Your task to perform on an android device: Open the Play Movies app and select the watchlist tab. Image 0: 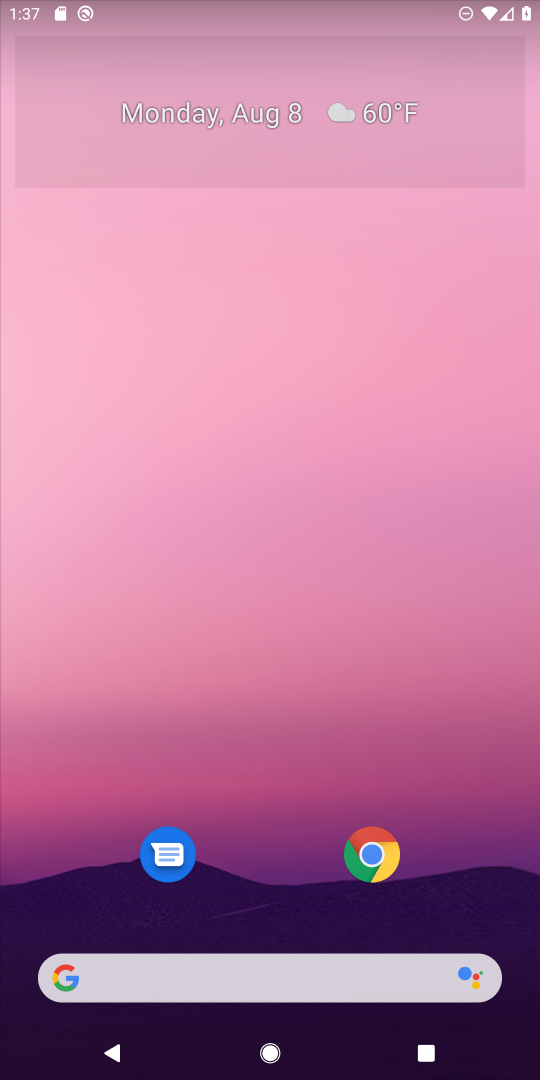
Step 0: press home button
Your task to perform on an android device: Open the Play Movies app and select the watchlist tab. Image 1: 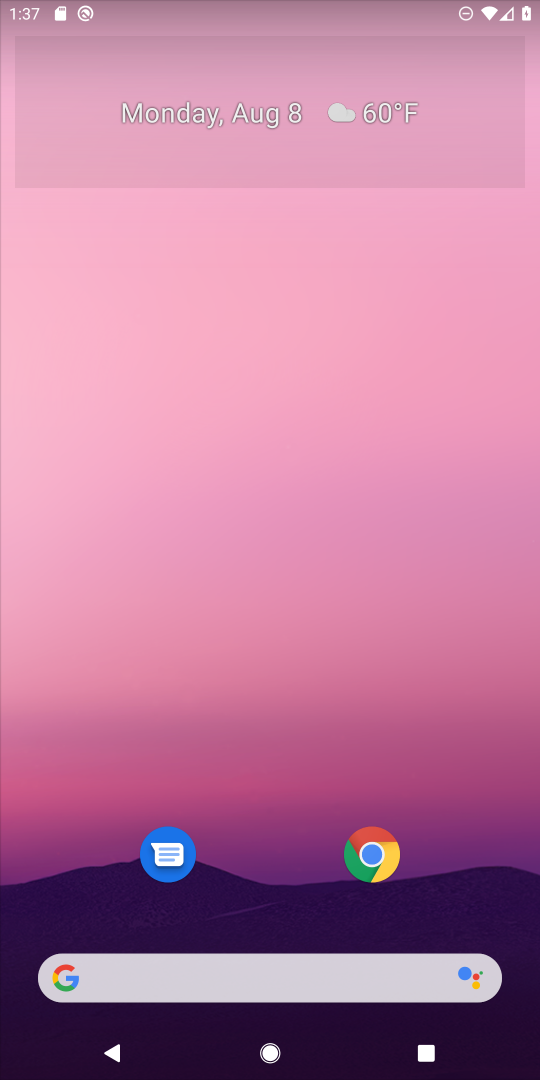
Step 1: drag from (283, 847) to (261, 124)
Your task to perform on an android device: Open the Play Movies app and select the watchlist tab. Image 2: 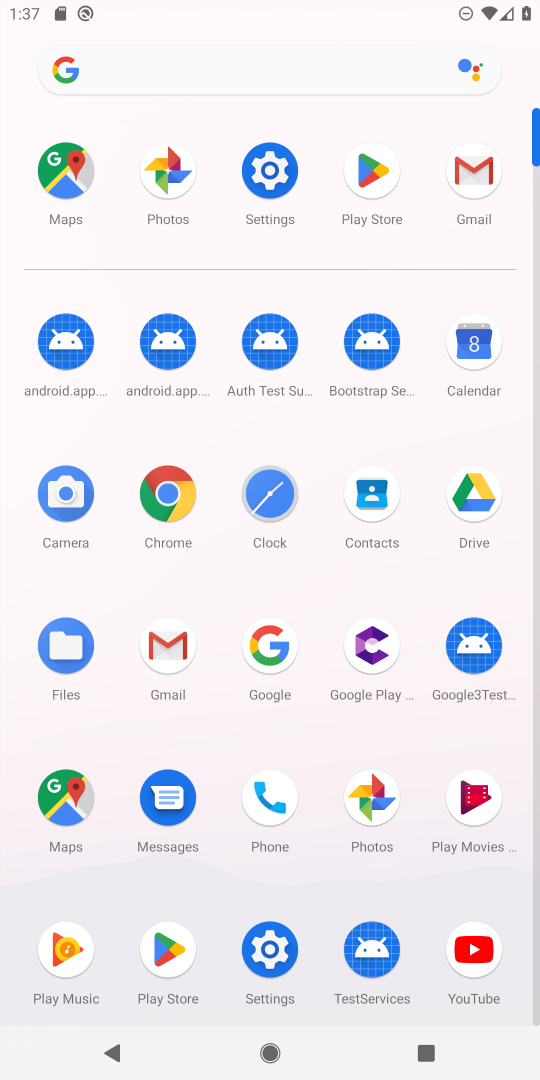
Step 2: click (472, 796)
Your task to perform on an android device: Open the Play Movies app and select the watchlist tab. Image 3: 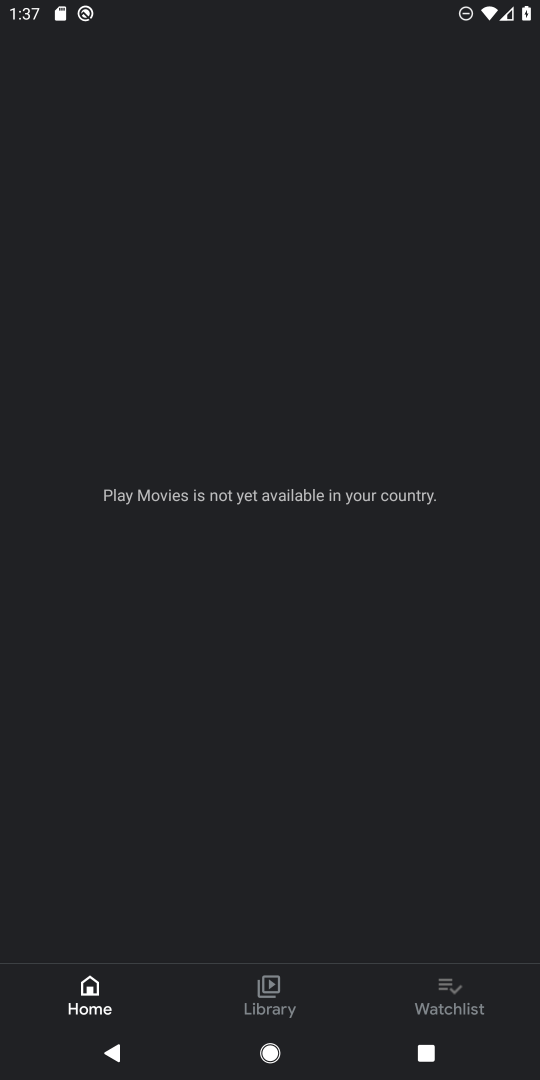
Step 3: click (451, 992)
Your task to perform on an android device: Open the Play Movies app and select the watchlist tab. Image 4: 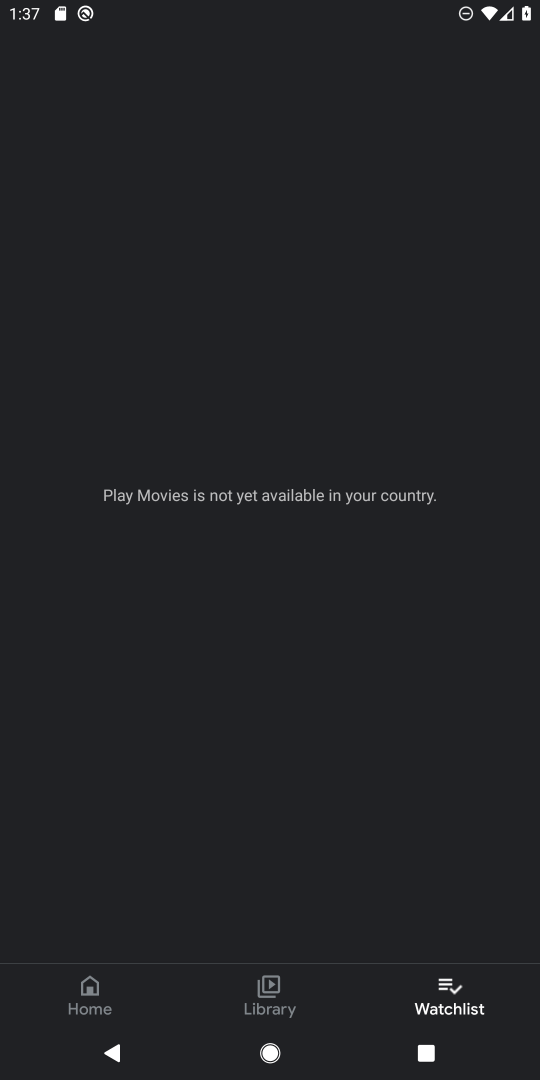
Step 4: task complete